Your task to perform on an android device: open app "Google Play Music" Image 0: 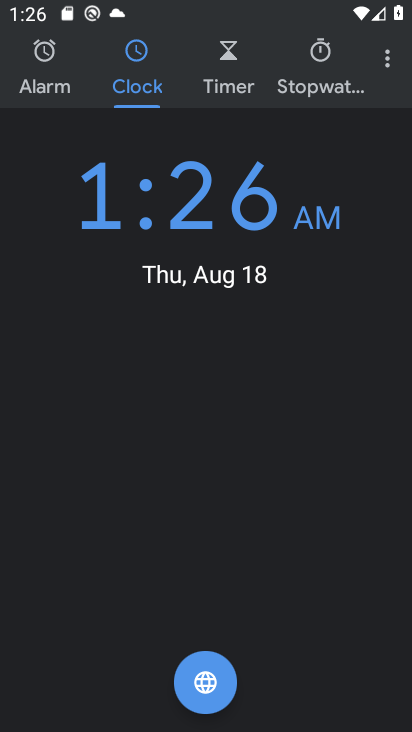
Step 0: press home button
Your task to perform on an android device: open app "Google Play Music" Image 1: 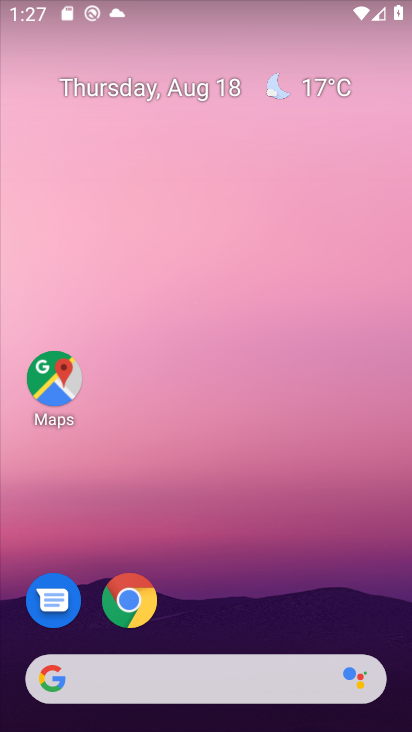
Step 1: drag from (305, 485) to (298, 186)
Your task to perform on an android device: open app "Google Play Music" Image 2: 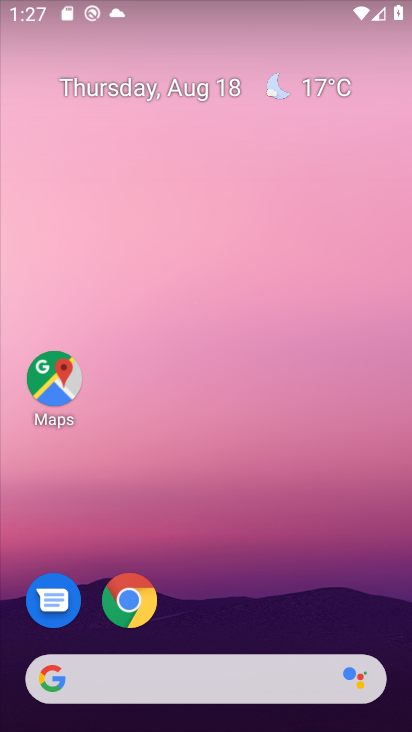
Step 2: drag from (349, 604) to (331, 209)
Your task to perform on an android device: open app "Google Play Music" Image 3: 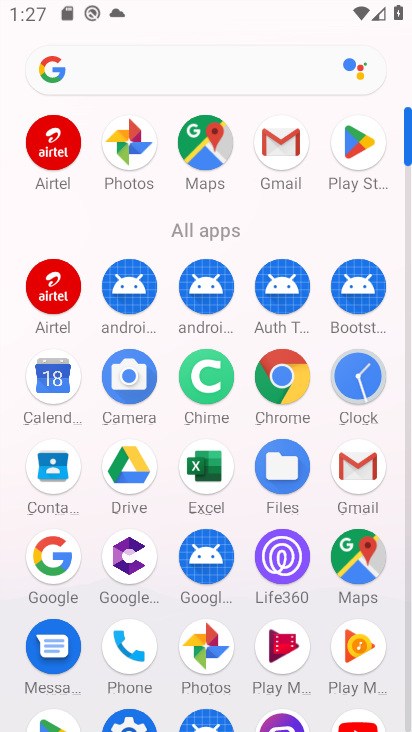
Step 3: click (368, 656)
Your task to perform on an android device: open app "Google Play Music" Image 4: 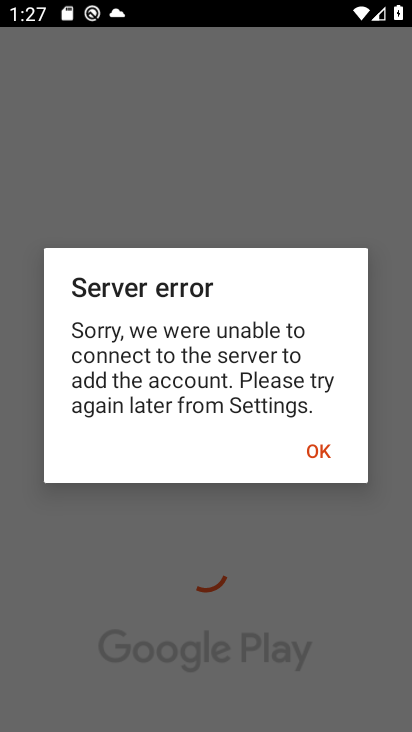
Step 4: click (322, 443)
Your task to perform on an android device: open app "Google Play Music" Image 5: 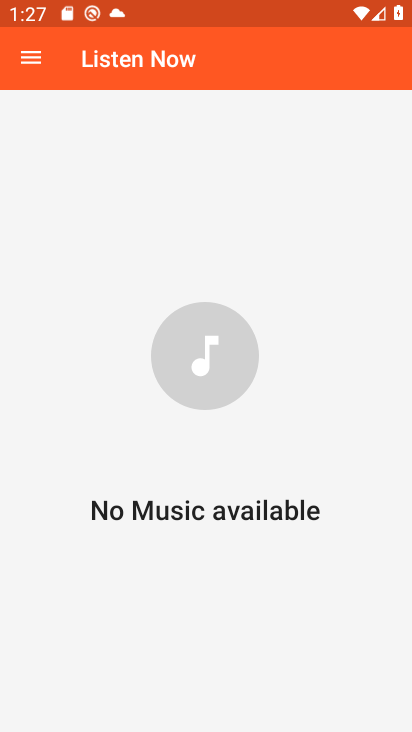
Step 5: task complete